Your task to perform on an android device: Open calendar and show me the second week of next month Image 0: 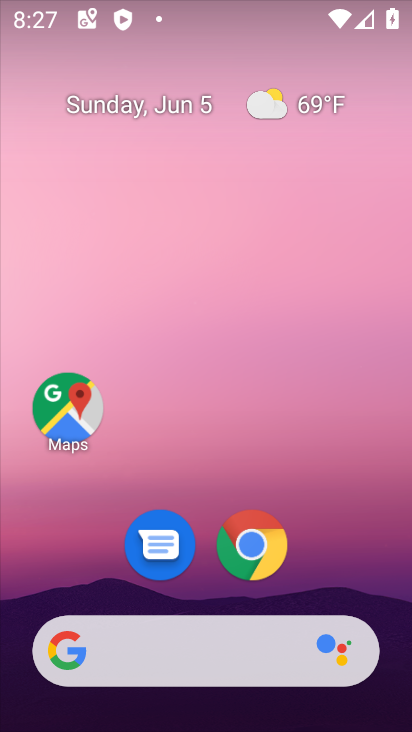
Step 0: drag from (361, 580) to (350, 268)
Your task to perform on an android device: Open calendar and show me the second week of next month Image 1: 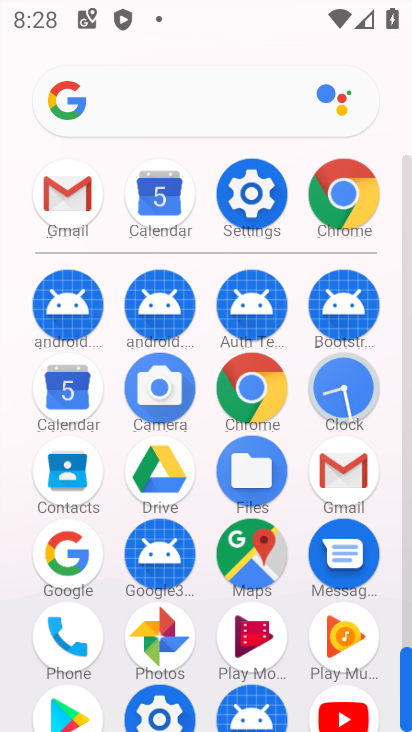
Step 1: click (80, 396)
Your task to perform on an android device: Open calendar and show me the second week of next month Image 2: 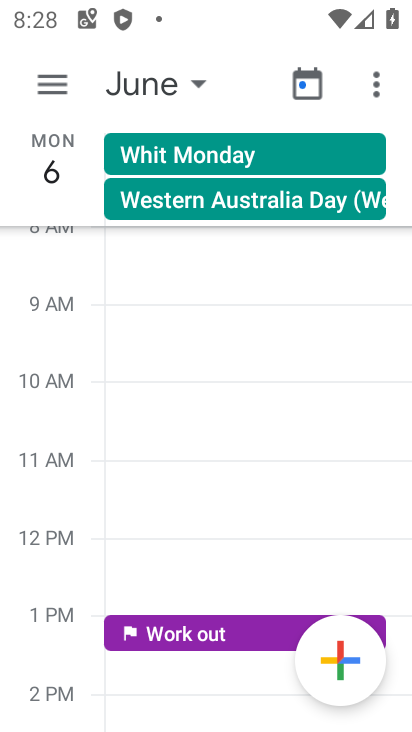
Step 2: click (193, 83)
Your task to perform on an android device: Open calendar and show me the second week of next month Image 3: 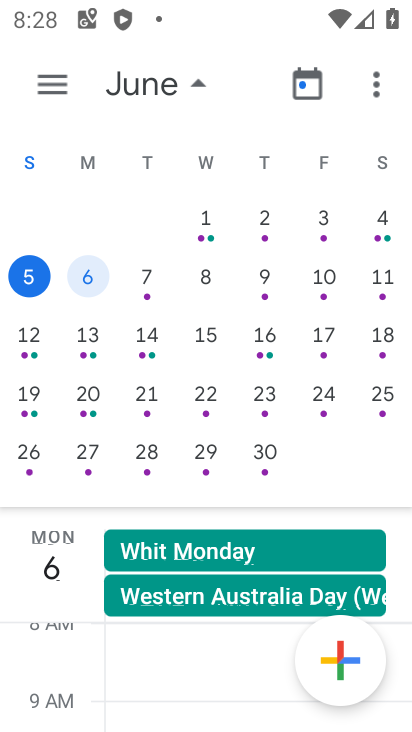
Step 3: drag from (394, 191) to (26, 171)
Your task to perform on an android device: Open calendar and show me the second week of next month Image 4: 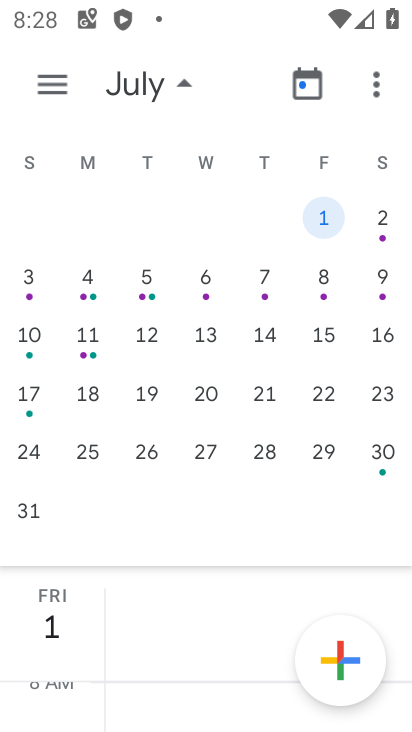
Step 4: click (86, 288)
Your task to perform on an android device: Open calendar and show me the second week of next month Image 5: 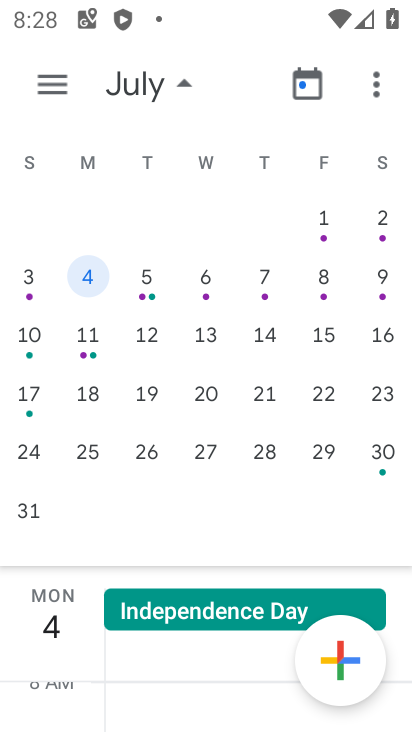
Step 5: task complete